Your task to perform on an android device: stop showing notifications on the lock screen Image 0: 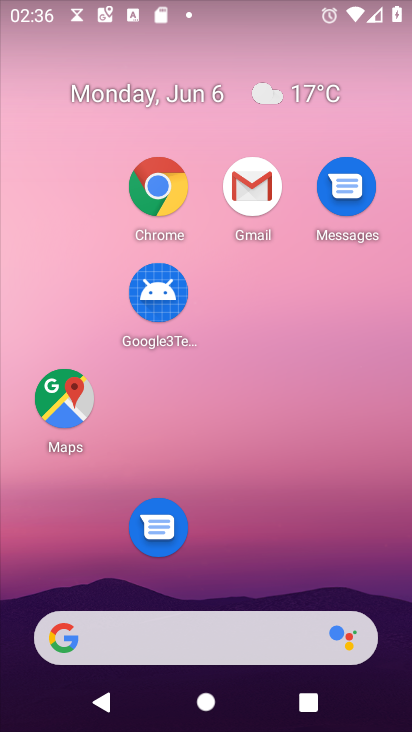
Step 0: drag from (317, 472) to (331, 208)
Your task to perform on an android device: stop showing notifications on the lock screen Image 1: 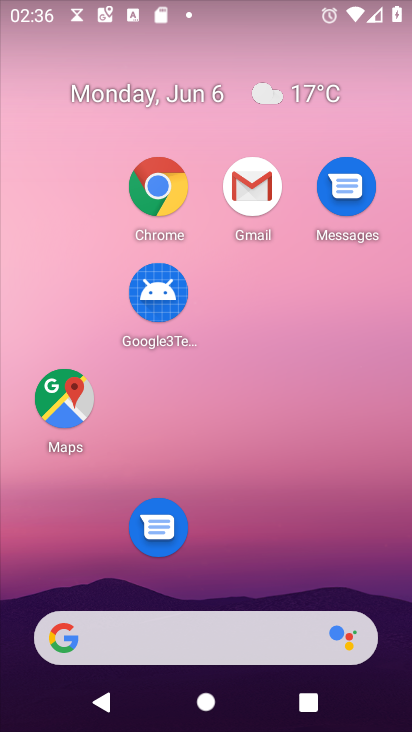
Step 1: drag from (380, 538) to (392, 42)
Your task to perform on an android device: stop showing notifications on the lock screen Image 2: 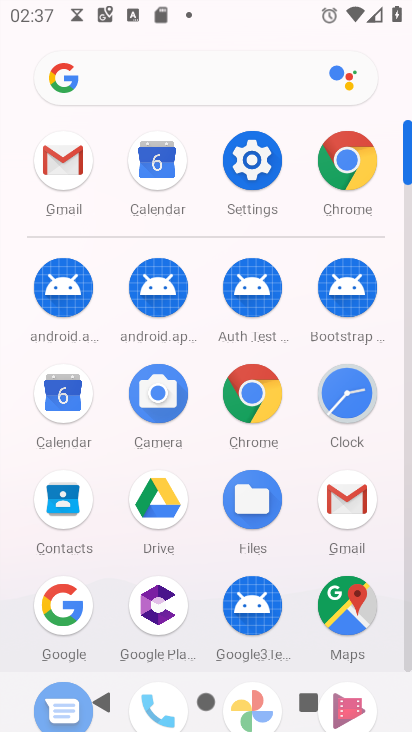
Step 2: click (265, 153)
Your task to perform on an android device: stop showing notifications on the lock screen Image 3: 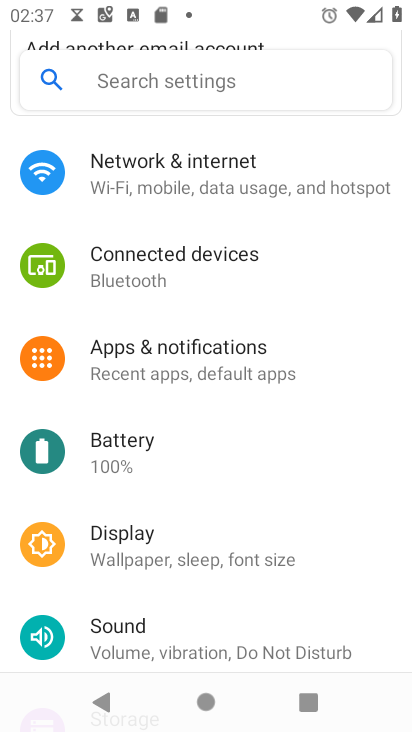
Step 3: drag from (351, 292) to (374, 724)
Your task to perform on an android device: stop showing notifications on the lock screen Image 4: 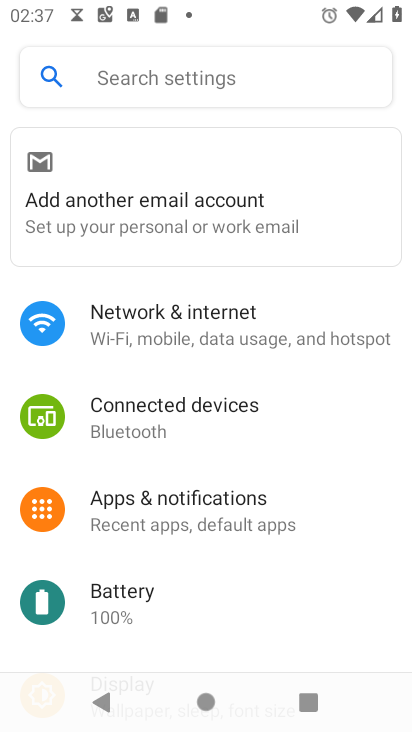
Step 4: click (247, 523)
Your task to perform on an android device: stop showing notifications on the lock screen Image 5: 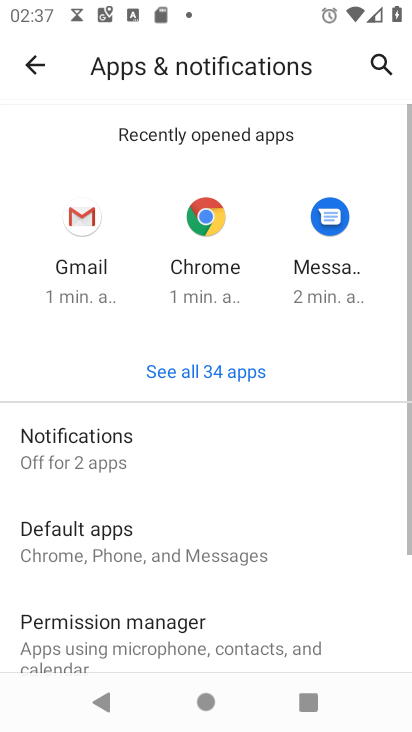
Step 5: click (181, 442)
Your task to perform on an android device: stop showing notifications on the lock screen Image 6: 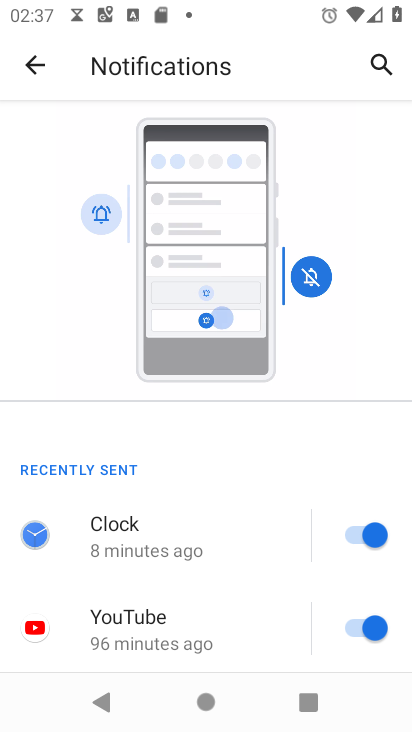
Step 6: drag from (235, 623) to (228, 324)
Your task to perform on an android device: stop showing notifications on the lock screen Image 7: 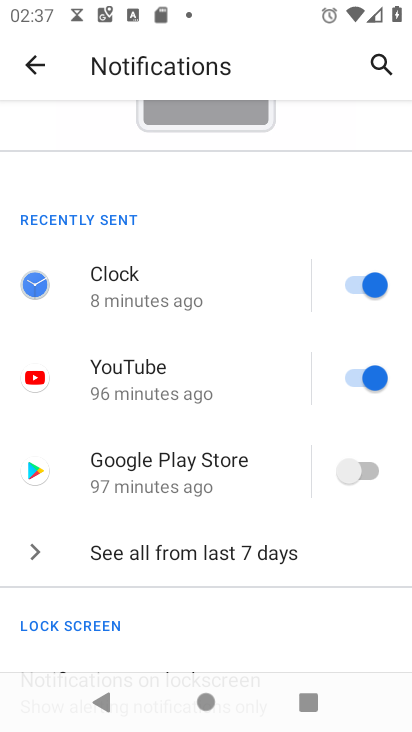
Step 7: click (332, 611)
Your task to perform on an android device: stop showing notifications on the lock screen Image 8: 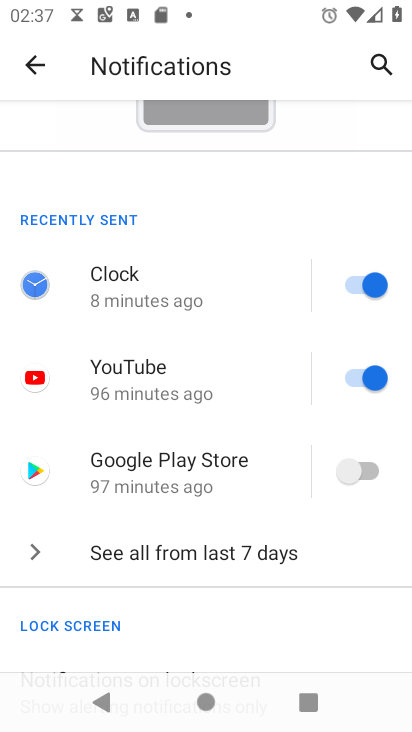
Step 8: drag from (332, 611) to (324, 321)
Your task to perform on an android device: stop showing notifications on the lock screen Image 9: 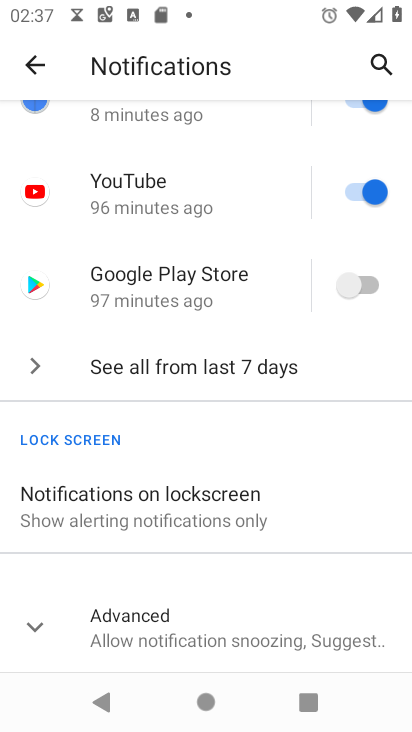
Step 9: click (210, 494)
Your task to perform on an android device: stop showing notifications on the lock screen Image 10: 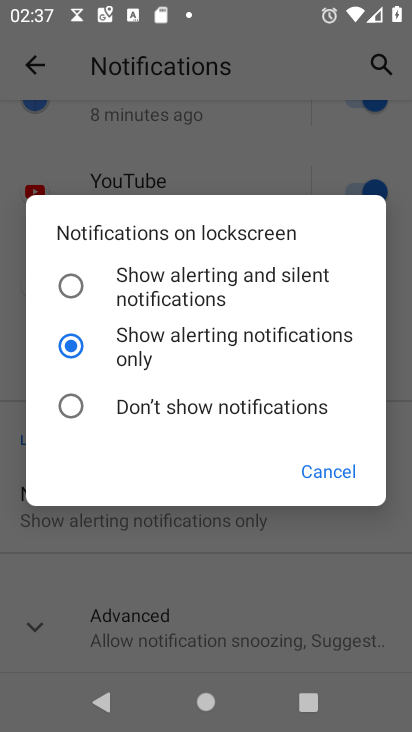
Step 10: click (68, 408)
Your task to perform on an android device: stop showing notifications on the lock screen Image 11: 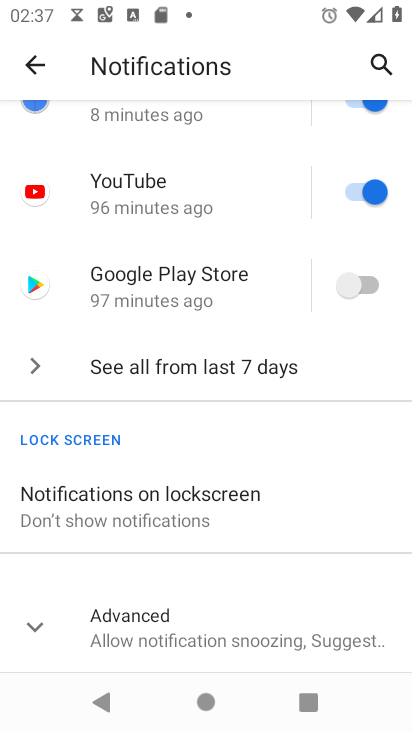
Step 11: task complete